Your task to perform on an android device: Show the shopping cart on ebay.com. Image 0: 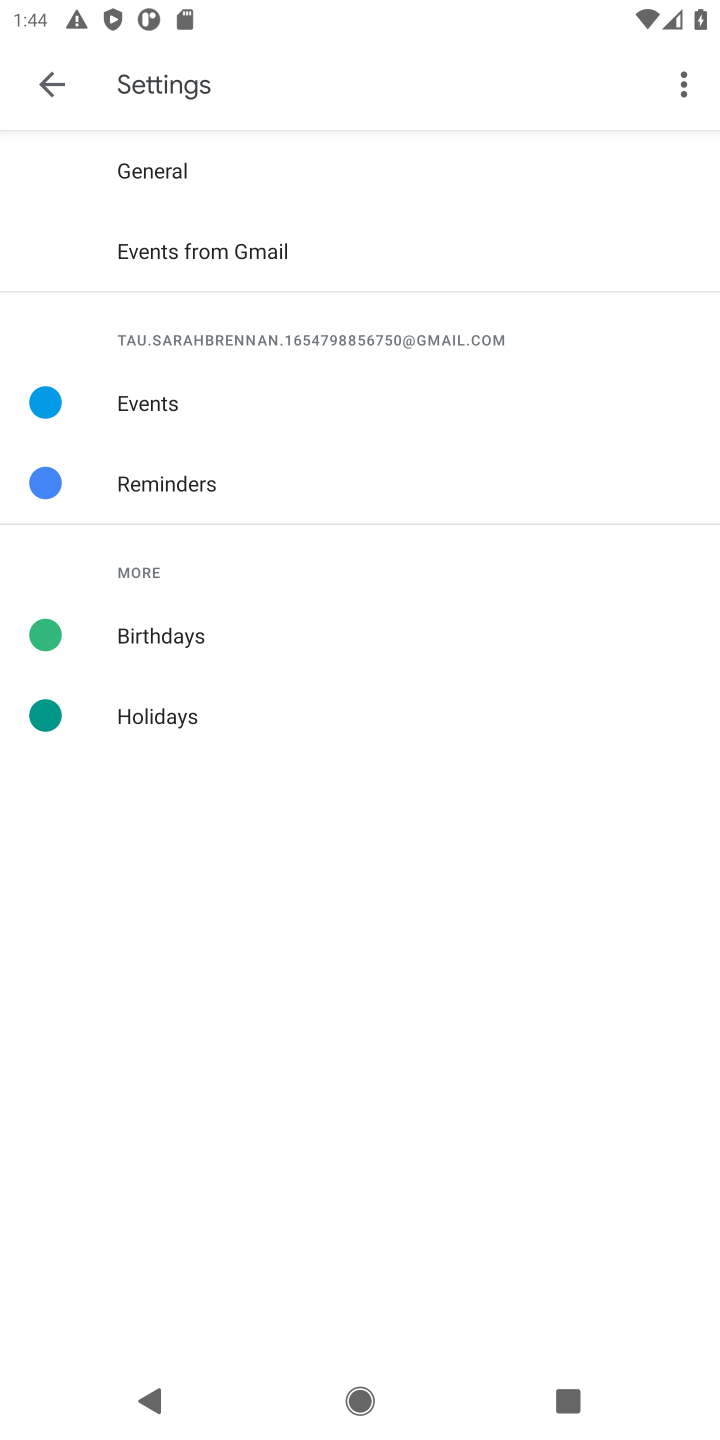
Step 0: press home button
Your task to perform on an android device: Show the shopping cart on ebay.com. Image 1: 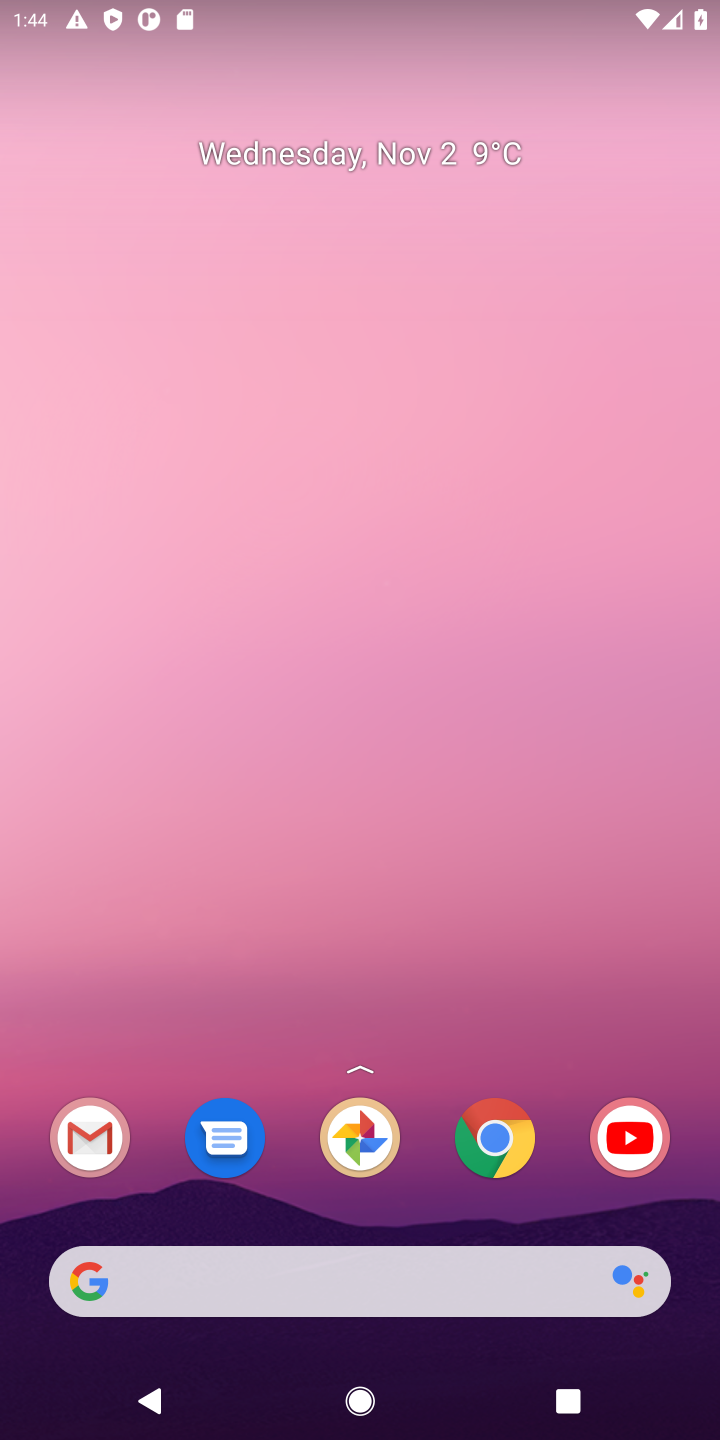
Step 1: click (484, 1154)
Your task to perform on an android device: Show the shopping cart on ebay.com. Image 2: 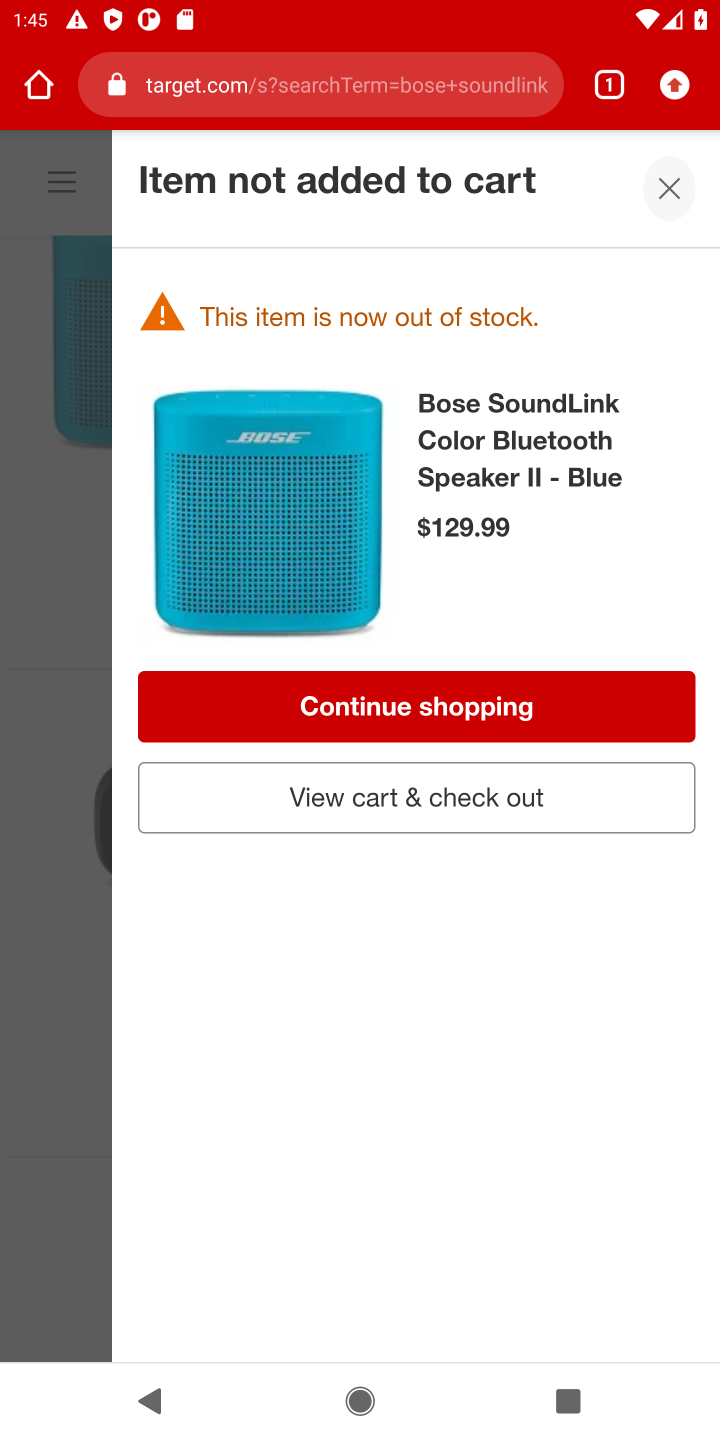
Step 2: click (435, 112)
Your task to perform on an android device: Show the shopping cart on ebay.com. Image 3: 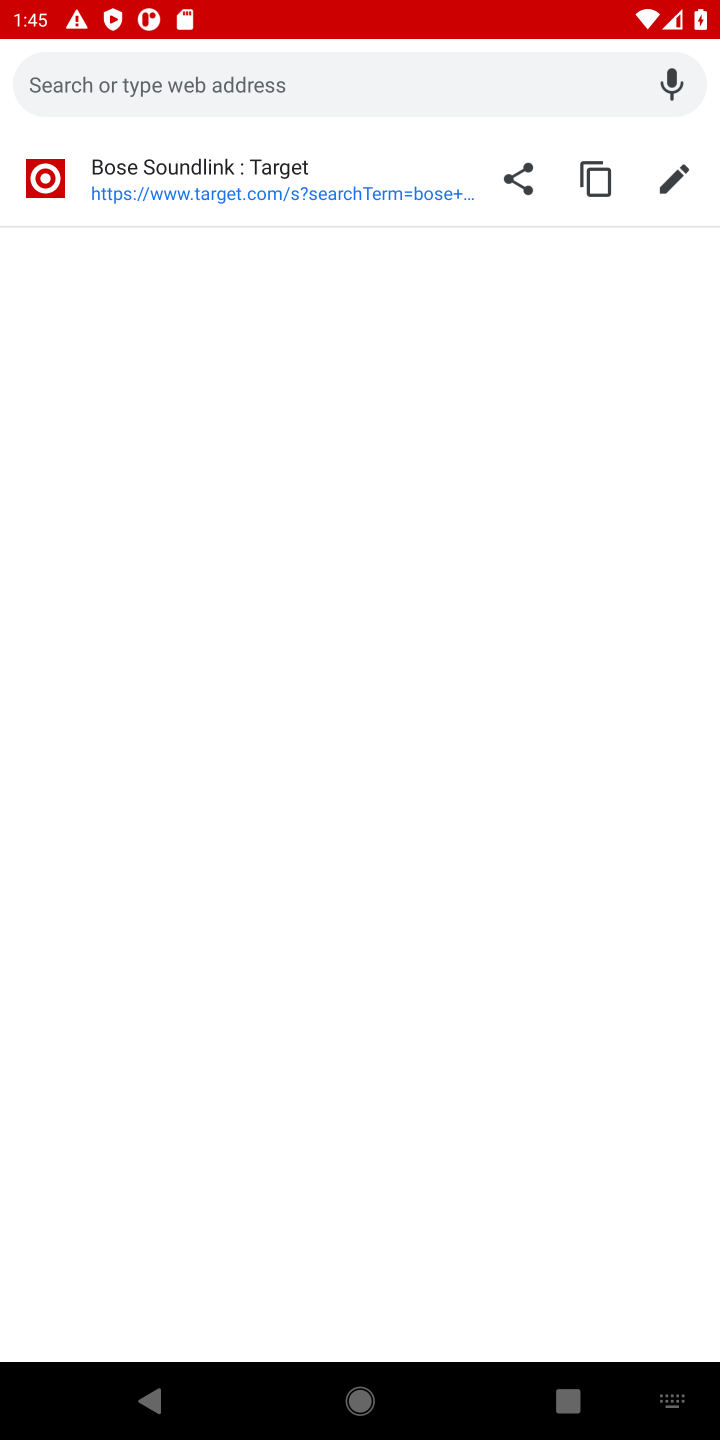
Step 3: type "ebay"
Your task to perform on an android device: Show the shopping cart on ebay.com. Image 4: 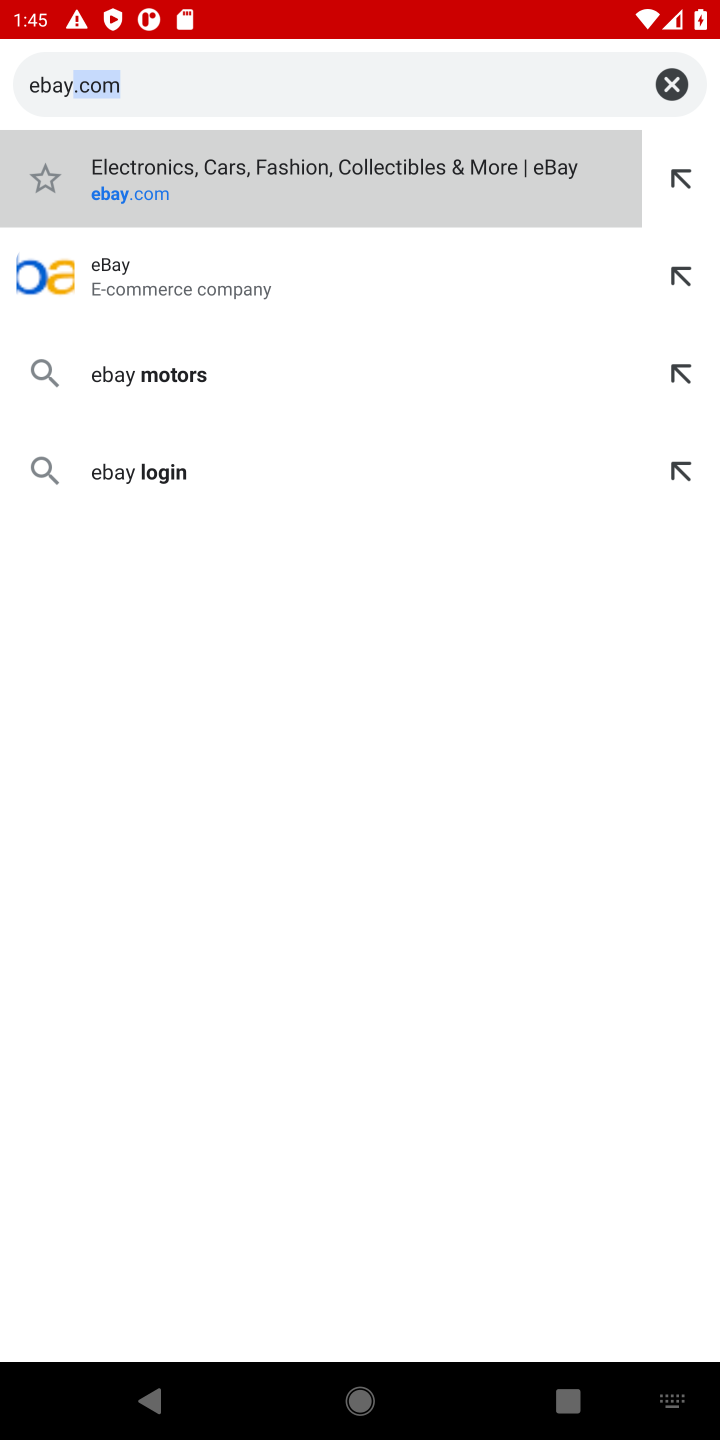
Step 4: click (131, 271)
Your task to perform on an android device: Show the shopping cart on ebay.com. Image 5: 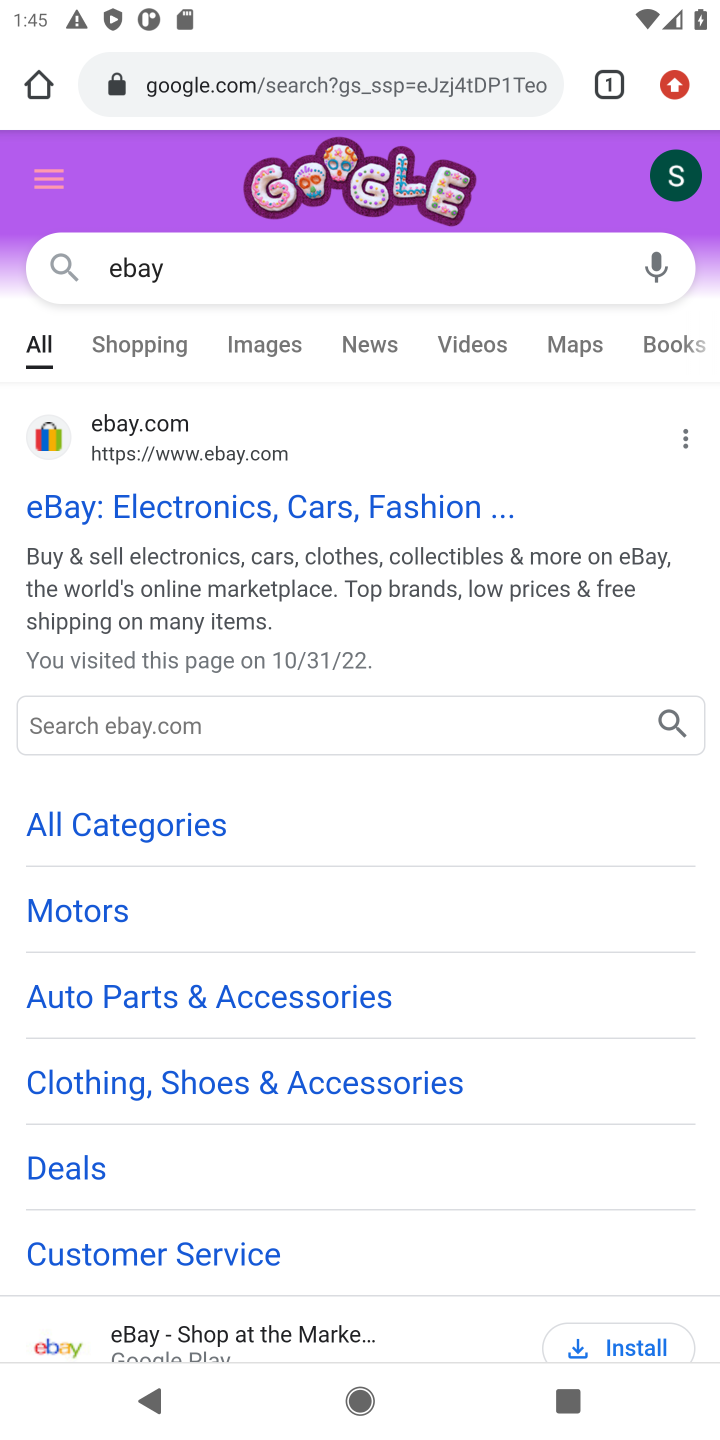
Step 5: click (203, 515)
Your task to perform on an android device: Show the shopping cart on ebay.com. Image 6: 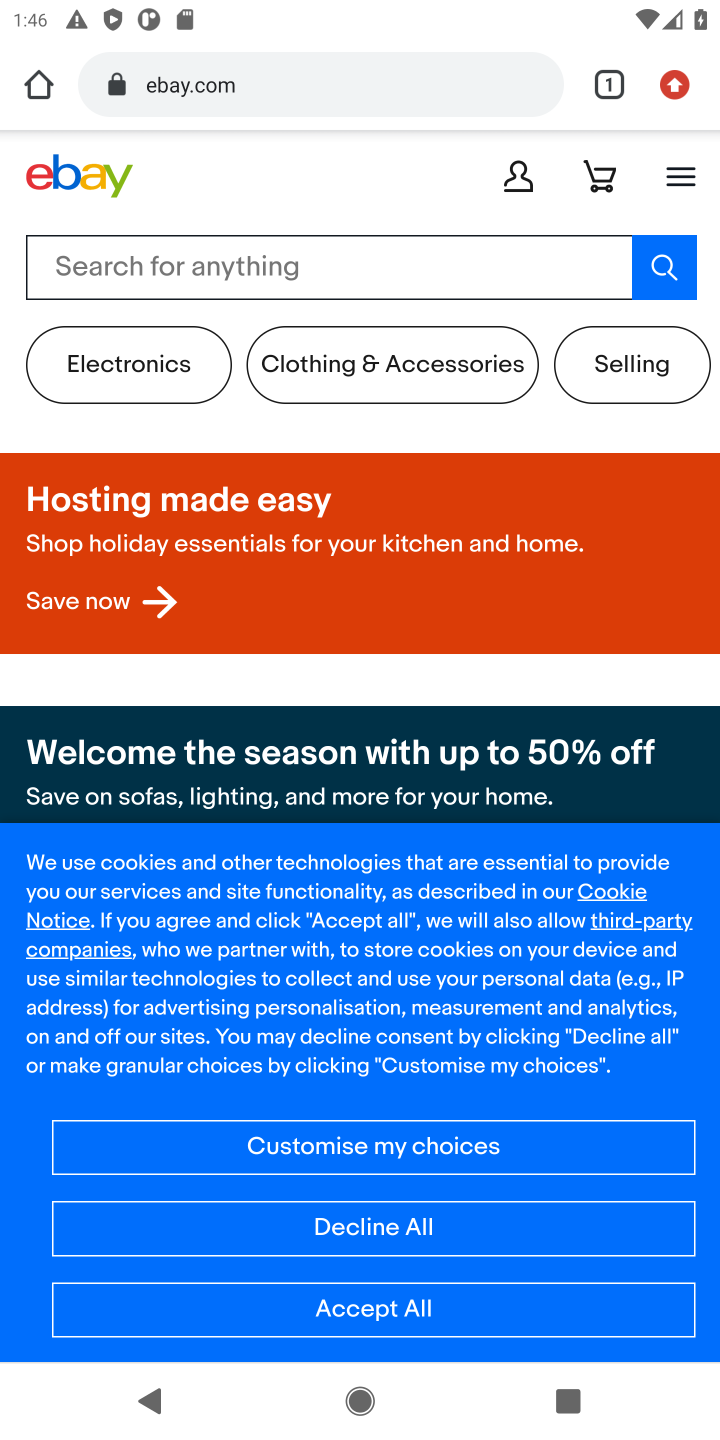
Step 6: click (597, 169)
Your task to perform on an android device: Show the shopping cart on ebay.com. Image 7: 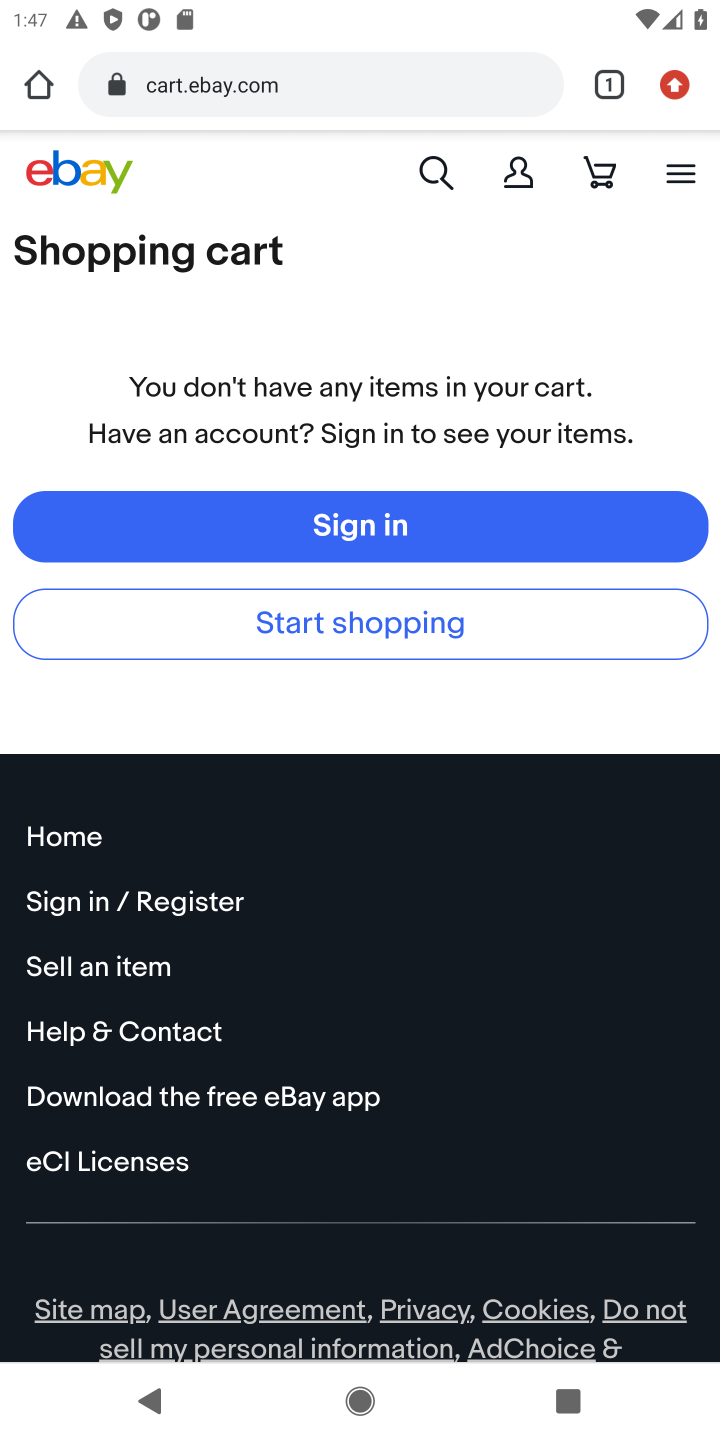
Step 7: task complete